Your task to perform on an android device: What's the weather today? Image 0: 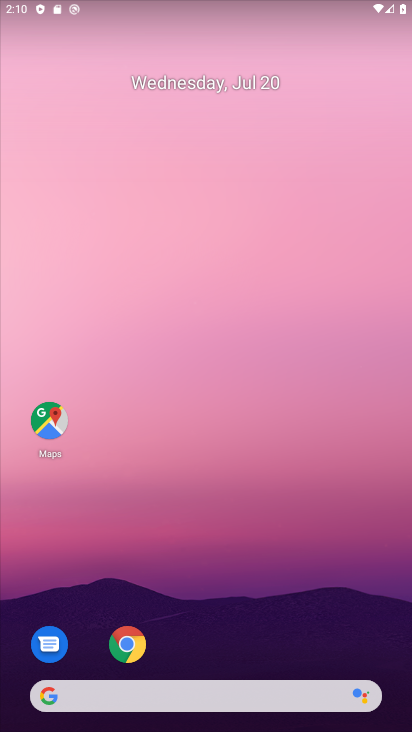
Step 0: click (210, 696)
Your task to perform on an android device: What's the weather today? Image 1: 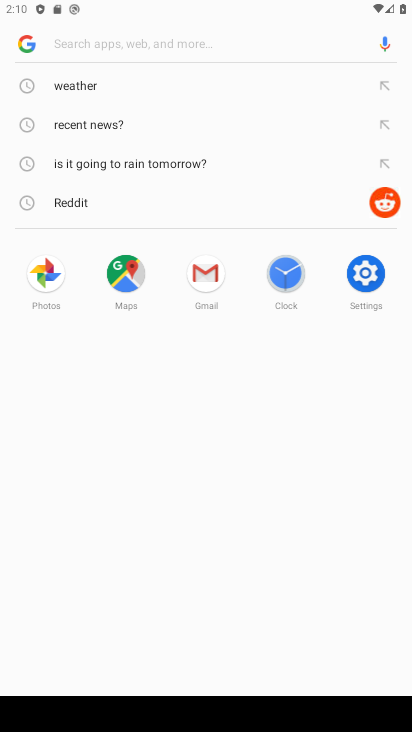
Step 1: type "what's the weather today"
Your task to perform on an android device: What's the weather today? Image 2: 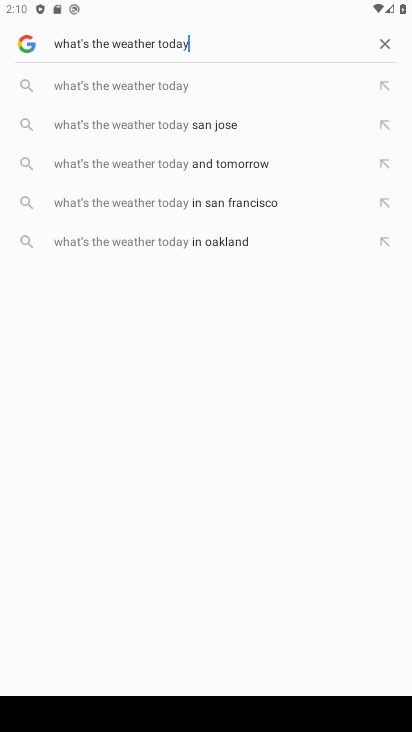
Step 2: click (155, 73)
Your task to perform on an android device: What's the weather today? Image 3: 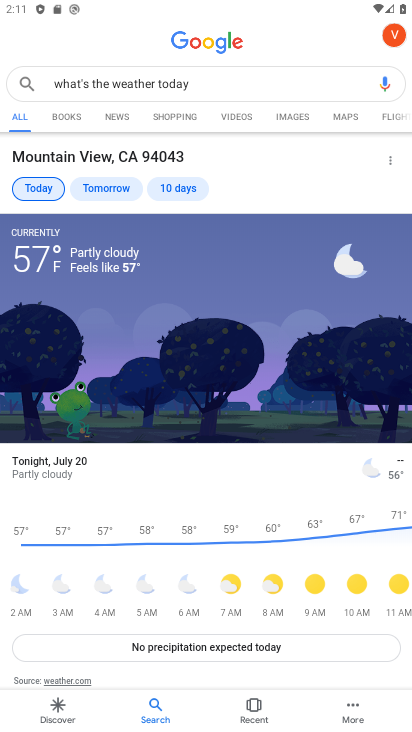
Step 3: task complete